Your task to perform on an android device: turn on javascript in the chrome app Image 0: 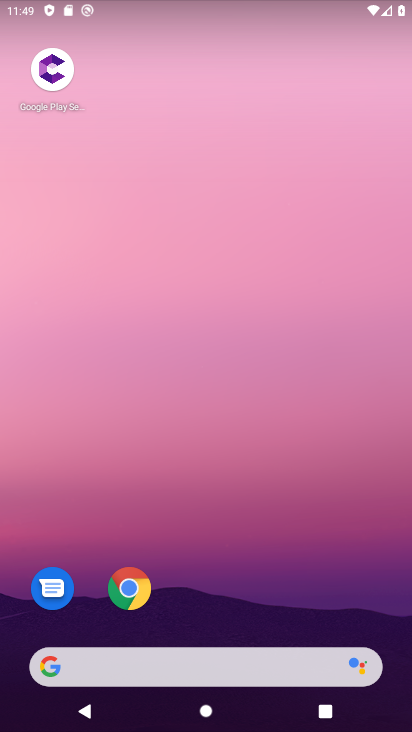
Step 0: click (136, 584)
Your task to perform on an android device: turn on javascript in the chrome app Image 1: 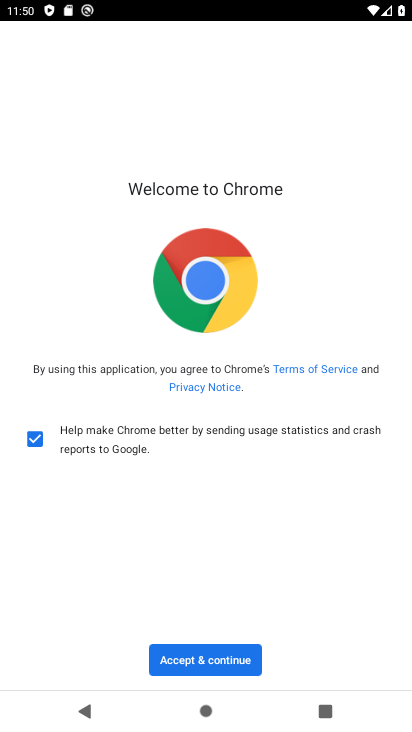
Step 1: click (224, 662)
Your task to perform on an android device: turn on javascript in the chrome app Image 2: 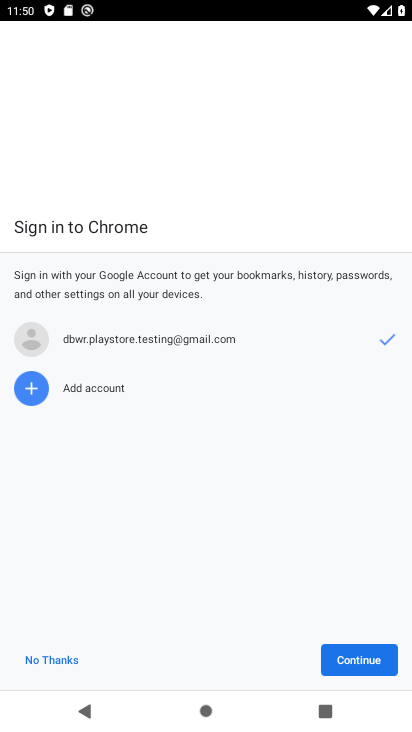
Step 2: click (339, 657)
Your task to perform on an android device: turn on javascript in the chrome app Image 3: 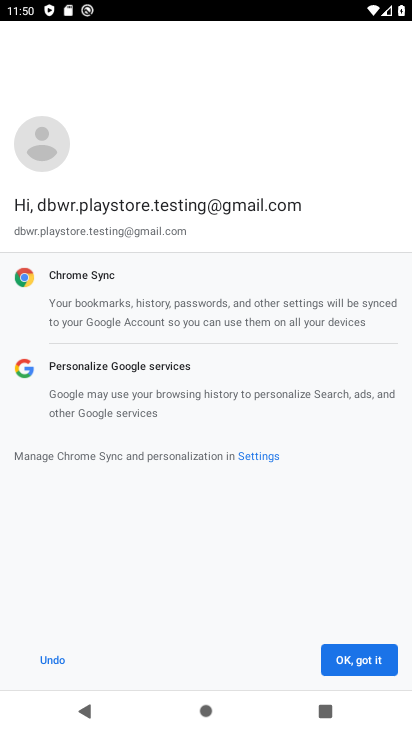
Step 3: click (341, 662)
Your task to perform on an android device: turn on javascript in the chrome app Image 4: 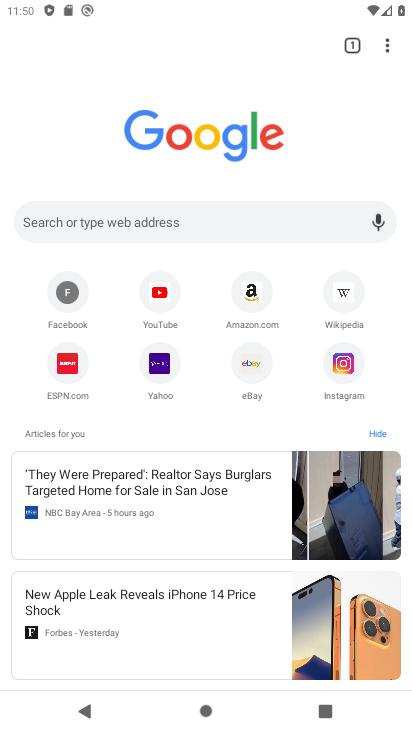
Step 4: click (384, 48)
Your task to perform on an android device: turn on javascript in the chrome app Image 5: 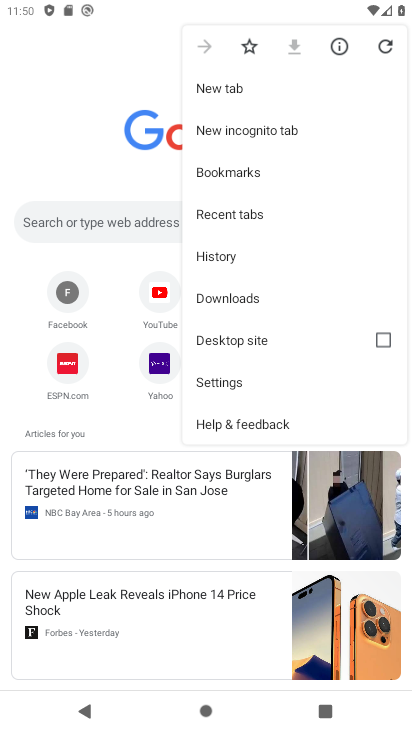
Step 5: click (237, 380)
Your task to perform on an android device: turn on javascript in the chrome app Image 6: 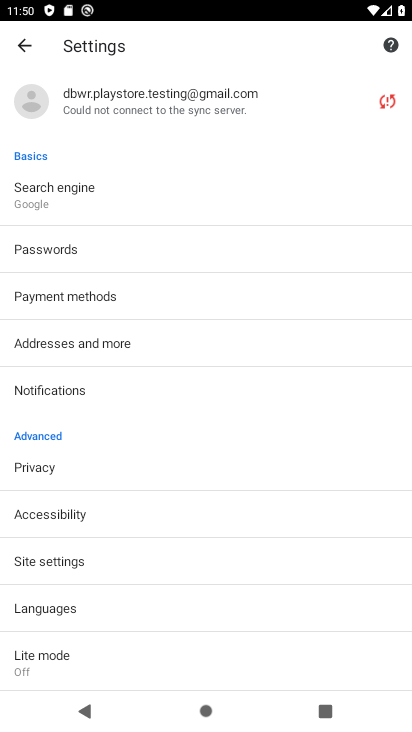
Step 6: click (40, 561)
Your task to perform on an android device: turn on javascript in the chrome app Image 7: 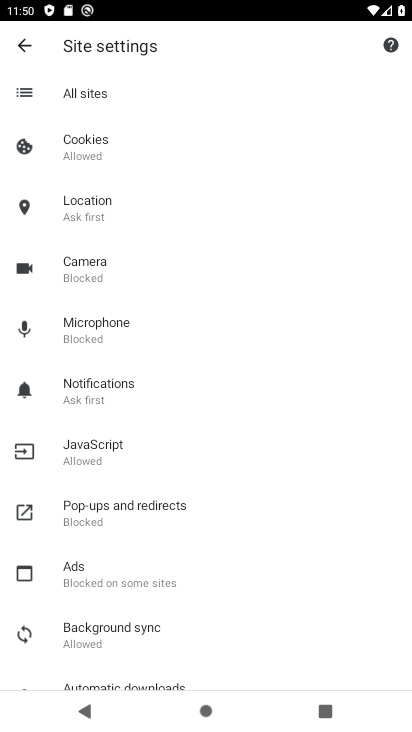
Step 7: click (117, 455)
Your task to perform on an android device: turn on javascript in the chrome app Image 8: 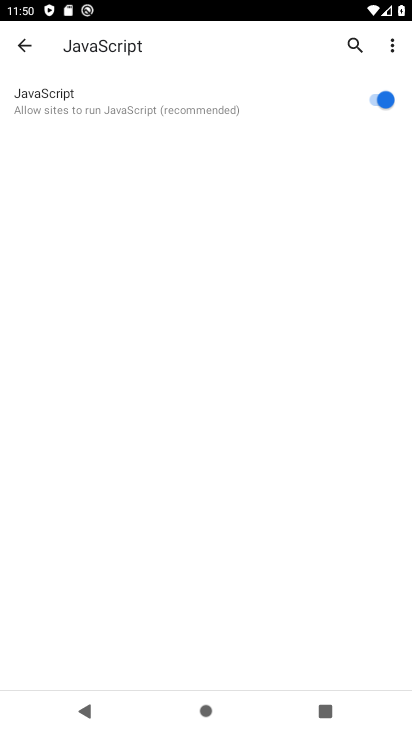
Step 8: task complete